Your task to perform on an android device: Go to CNN.com Image 0: 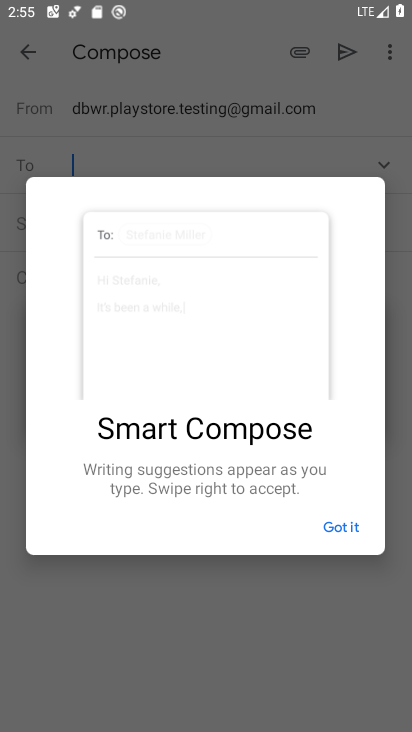
Step 0: press home button
Your task to perform on an android device: Go to CNN.com Image 1: 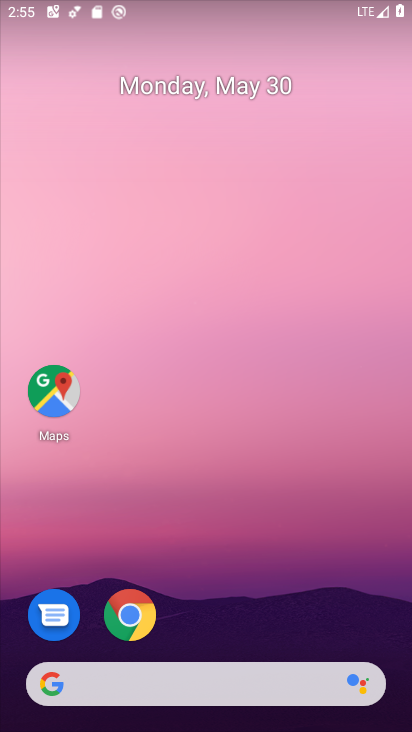
Step 1: click (233, 684)
Your task to perform on an android device: Go to CNN.com Image 2: 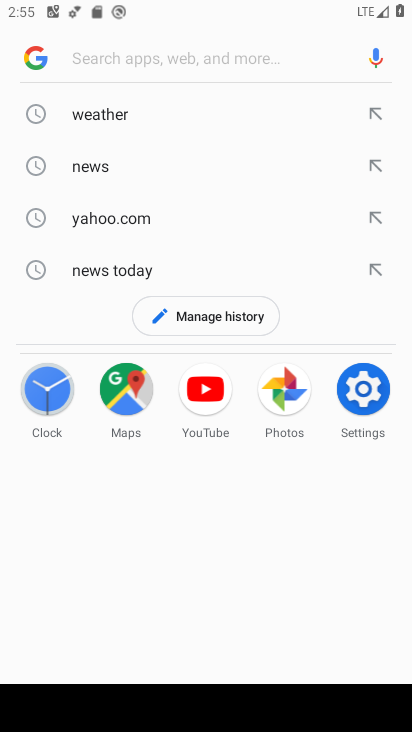
Step 2: type "cnn.com"
Your task to perform on an android device: Go to CNN.com Image 3: 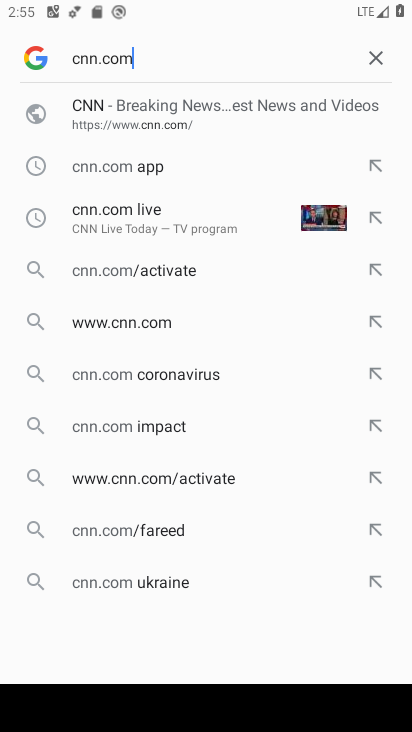
Step 3: click (156, 111)
Your task to perform on an android device: Go to CNN.com Image 4: 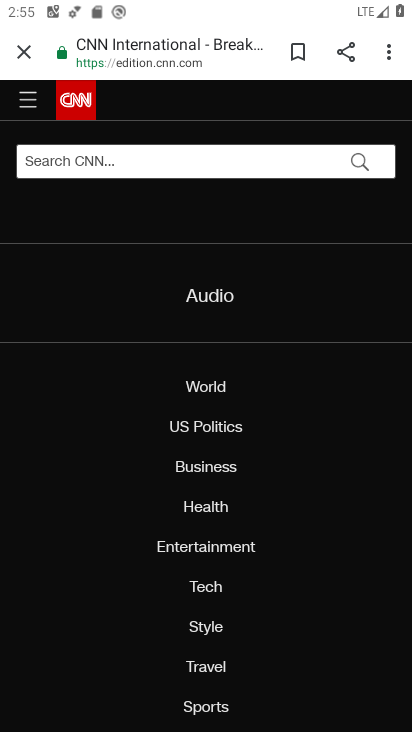
Step 4: task complete